Your task to perform on an android device: install app "The Home Depot" Image 0: 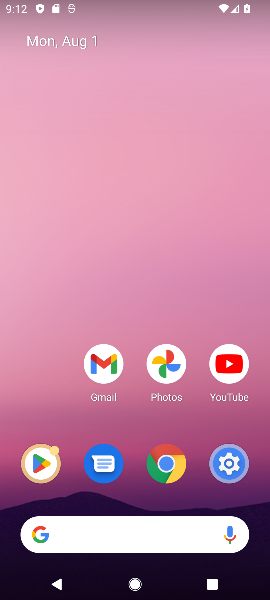
Step 0: click (36, 466)
Your task to perform on an android device: install app "The Home Depot" Image 1: 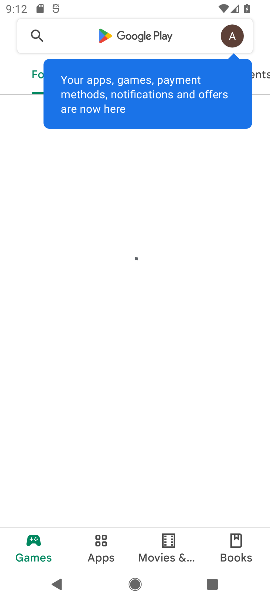
Step 1: click (129, 35)
Your task to perform on an android device: install app "The Home Depot" Image 2: 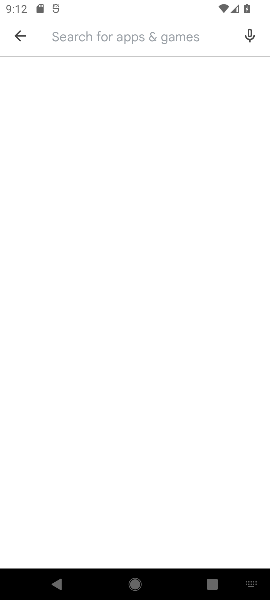
Step 2: click (89, 37)
Your task to perform on an android device: install app "The Home Depot" Image 3: 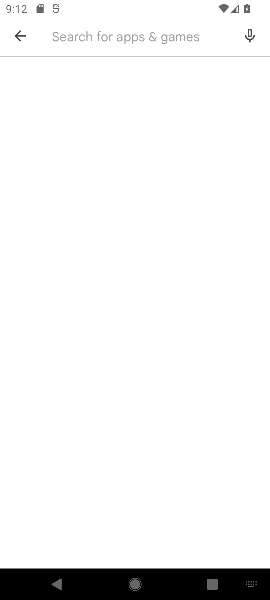
Step 3: type "the home depot"
Your task to perform on an android device: install app "The Home Depot" Image 4: 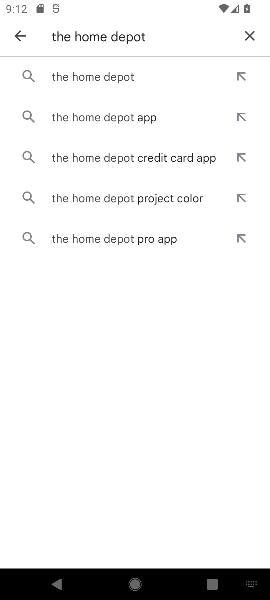
Step 4: click (119, 70)
Your task to perform on an android device: install app "The Home Depot" Image 5: 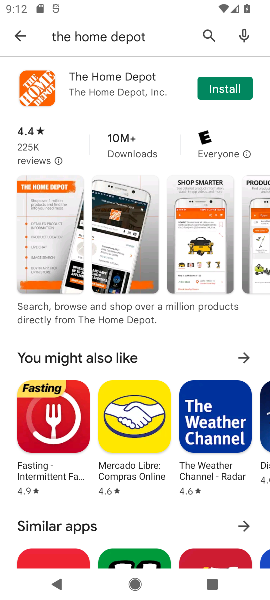
Step 5: click (215, 84)
Your task to perform on an android device: install app "The Home Depot" Image 6: 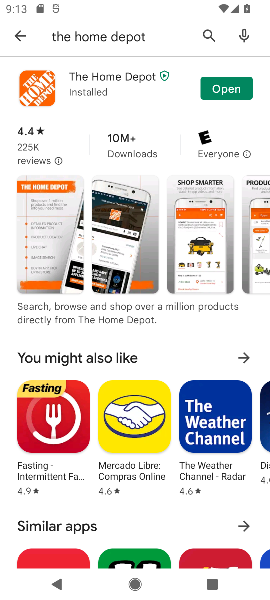
Step 6: task complete